Your task to perform on an android device: visit the assistant section in the google photos Image 0: 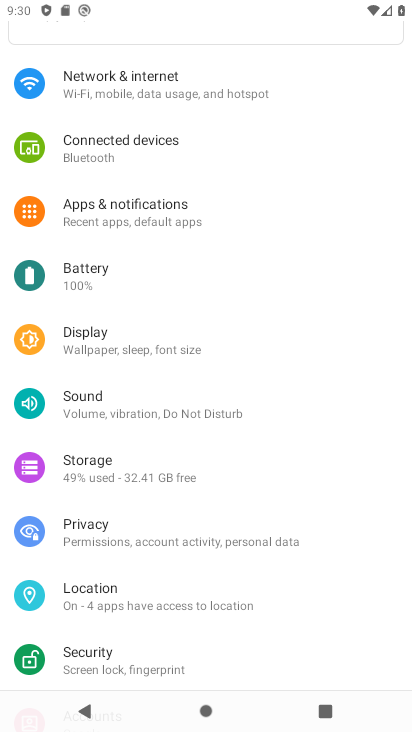
Step 0: press home button
Your task to perform on an android device: visit the assistant section in the google photos Image 1: 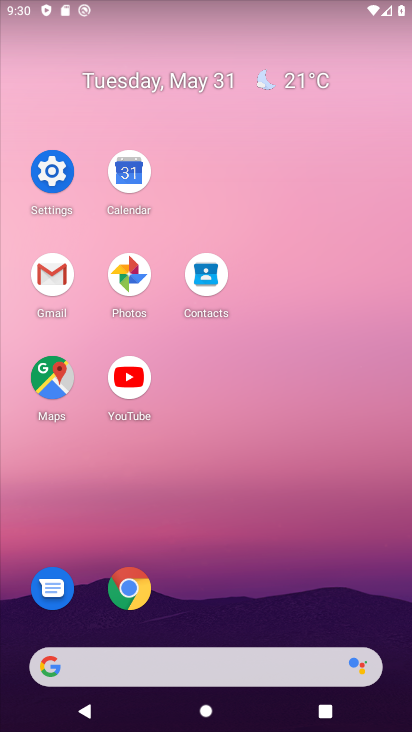
Step 1: click (140, 270)
Your task to perform on an android device: visit the assistant section in the google photos Image 2: 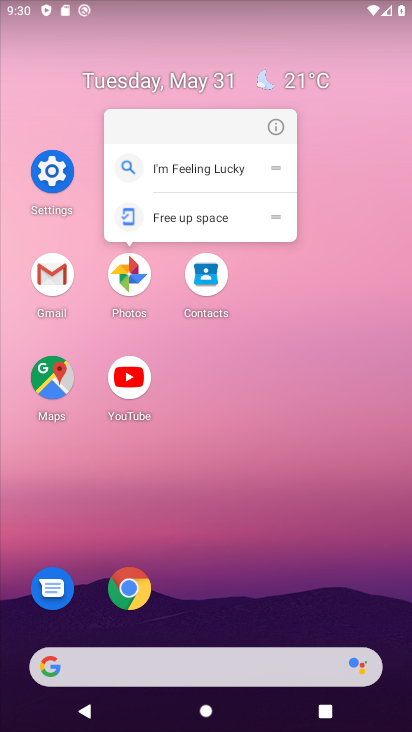
Step 2: click (145, 278)
Your task to perform on an android device: visit the assistant section in the google photos Image 3: 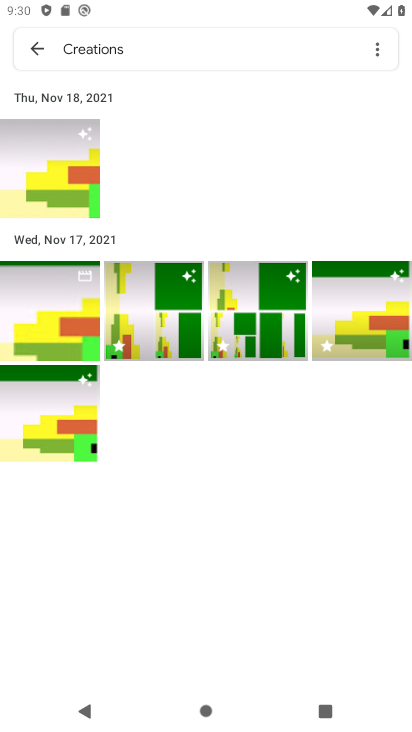
Step 3: click (35, 60)
Your task to perform on an android device: visit the assistant section in the google photos Image 4: 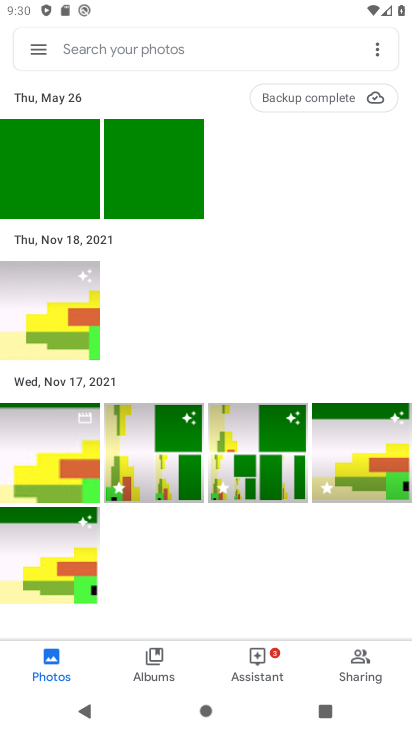
Step 4: click (262, 664)
Your task to perform on an android device: visit the assistant section in the google photos Image 5: 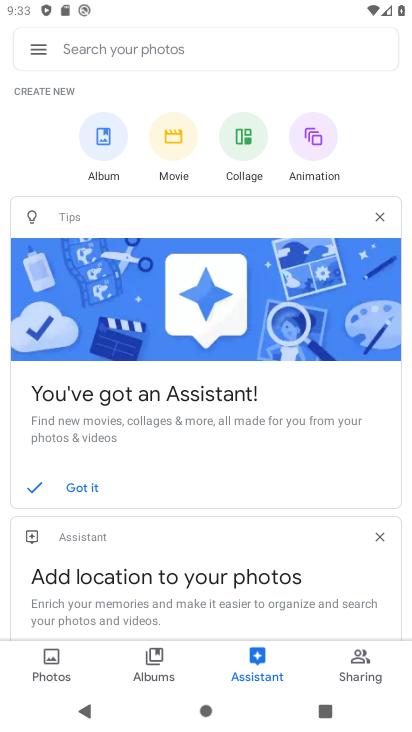
Step 5: task complete